Your task to perform on an android device: Open location settings Image 0: 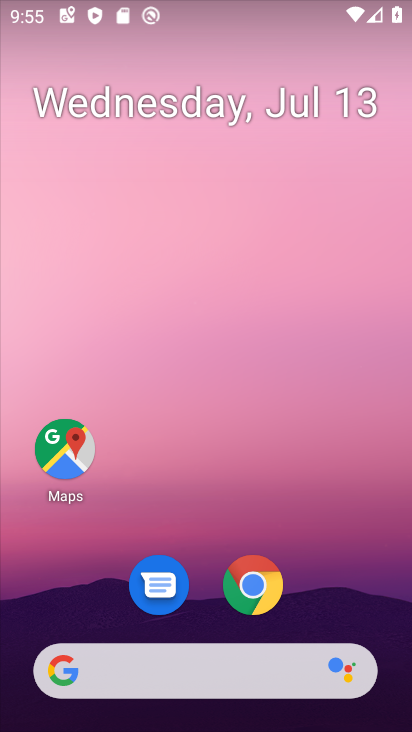
Step 0: drag from (239, 534) to (270, 38)
Your task to perform on an android device: Open location settings Image 1: 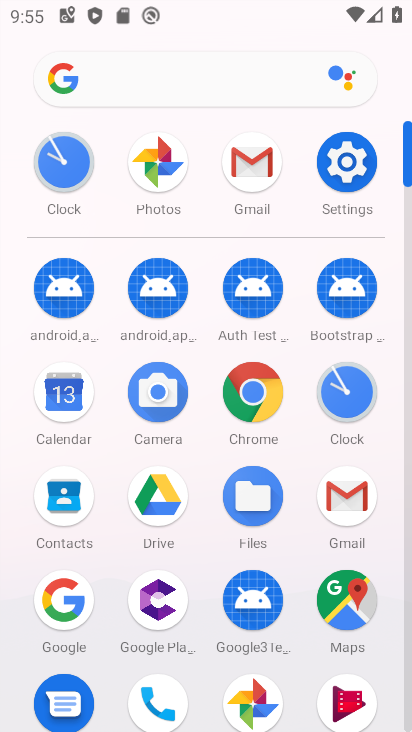
Step 1: click (348, 163)
Your task to perform on an android device: Open location settings Image 2: 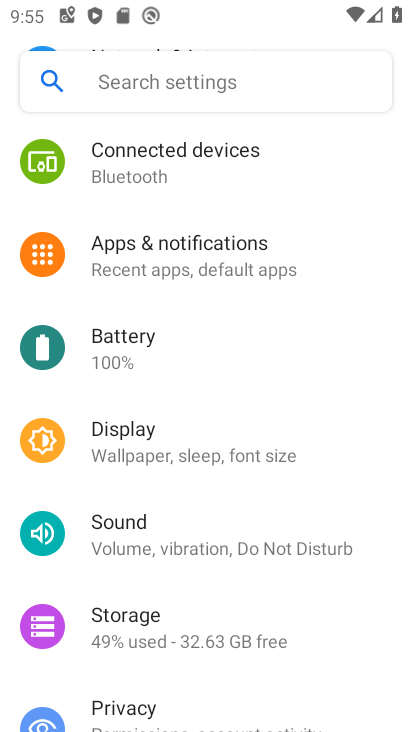
Step 2: drag from (232, 501) to (271, 249)
Your task to perform on an android device: Open location settings Image 3: 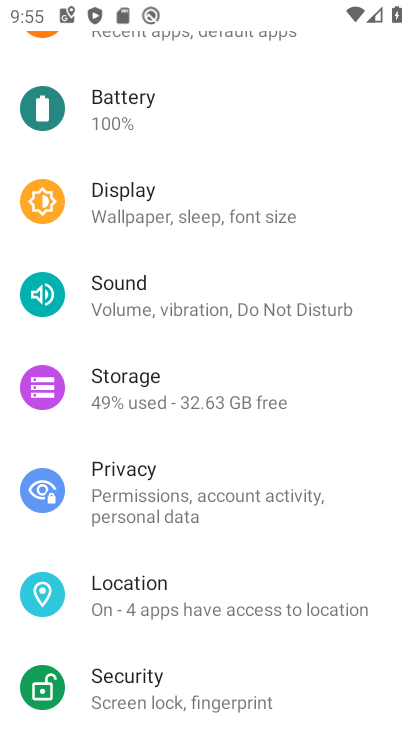
Step 3: click (222, 608)
Your task to perform on an android device: Open location settings Image 4: 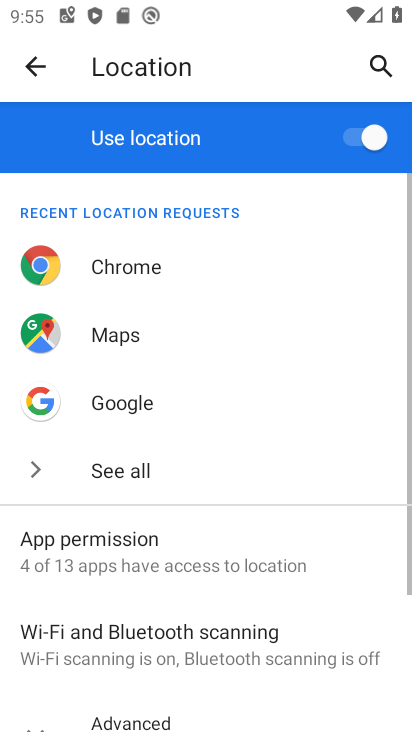
Step 4: task complete